Your task to perform on an android device: make emails show in primary in the gmail app Image 0: 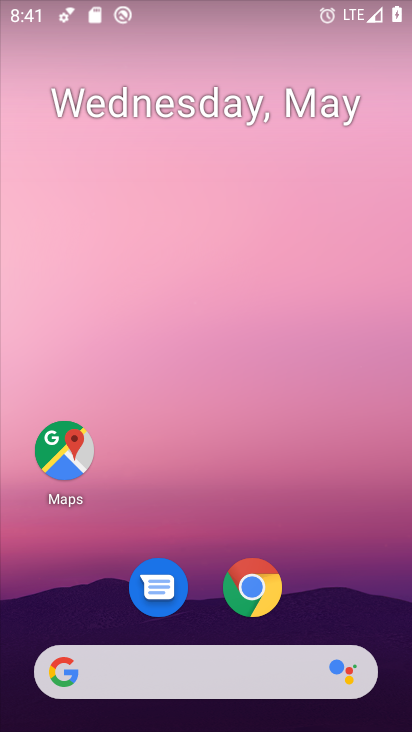
Step 0: drag from (198, 620) to (277, 172)
Your task to perform on an android device: make emails show in primary in the gmail app Image 1: 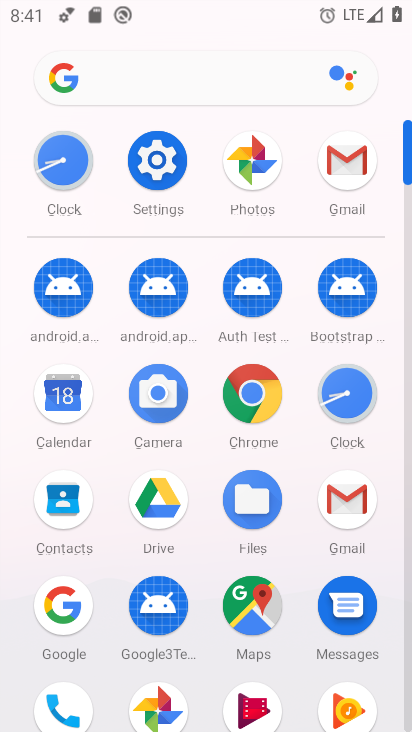
Step 1: click (351, 502)
Your task to perform on an android device: make emails show in primary in the gmail app Image 2: 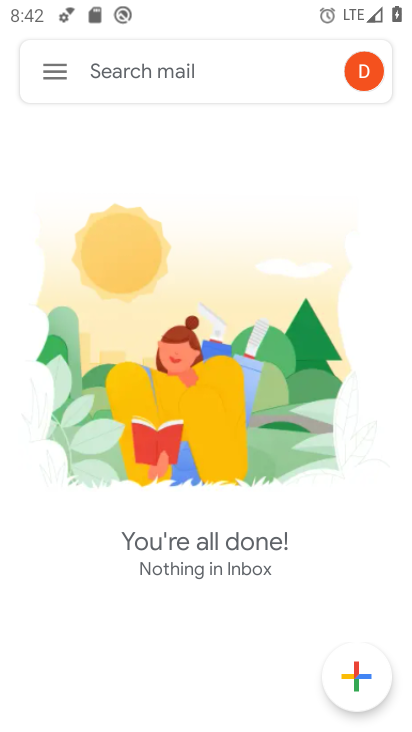
Step 2: click (58, 69)
Your task to perform on an android device: make emails show in primary in the gmail app Image 3: 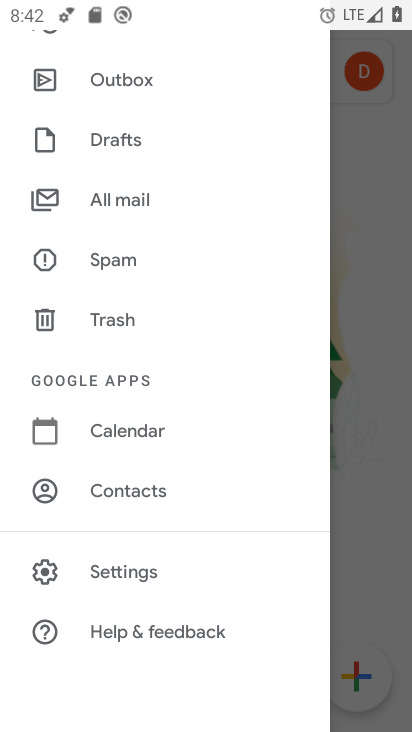
Step 3: click (125, 572)
Your task to perform on an android device: make emails show in primary in the gmail app Image 4: 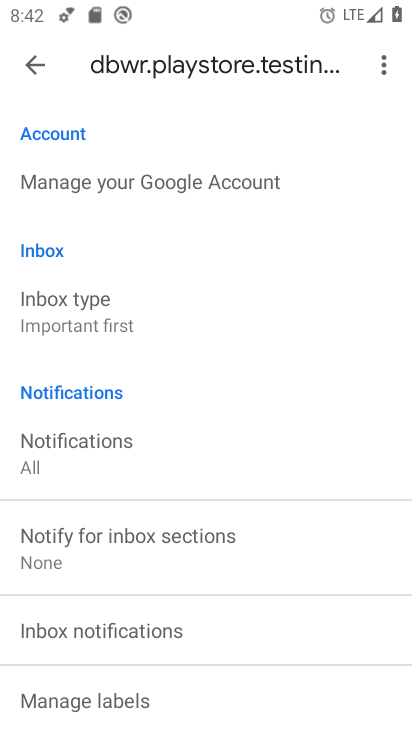
Step 4: click (82, 308)
Your task to perform on an android device: make emails show in primary in the gmail app Image 5: 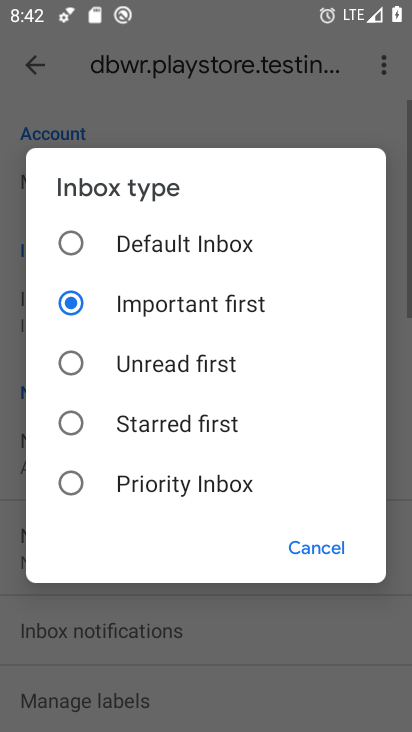
Step 5: click (117, 238)
Your task to perform on an android device: make emails show in primary in the gmail app Image 6: 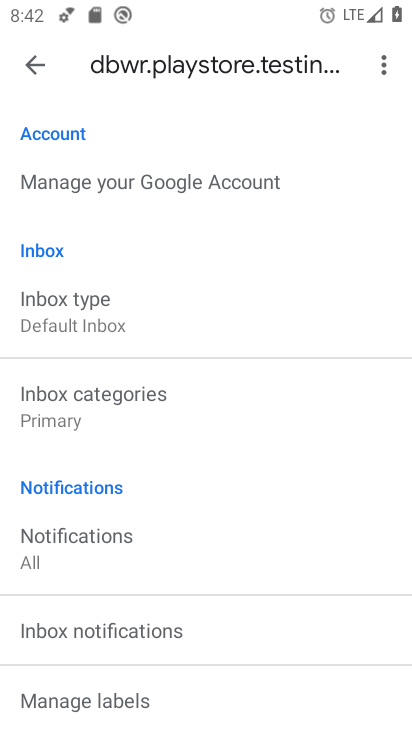
Step 6: task complete